Your task to perform on an android device: Go to Wikipedia Image 0: 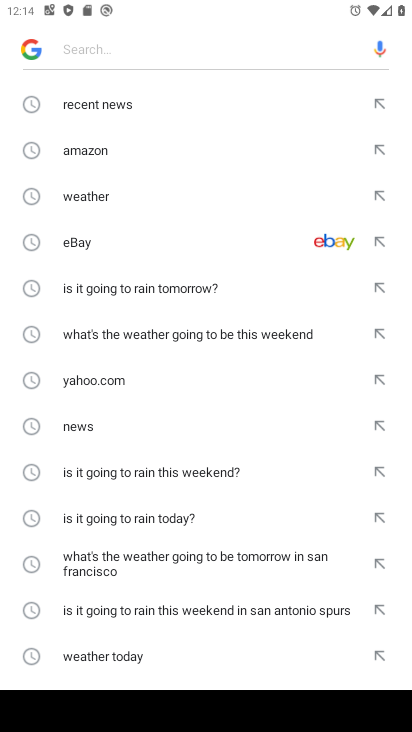
Step 0: press home button
Your task to perform on an android device: Go to Wikipedia Image 1: 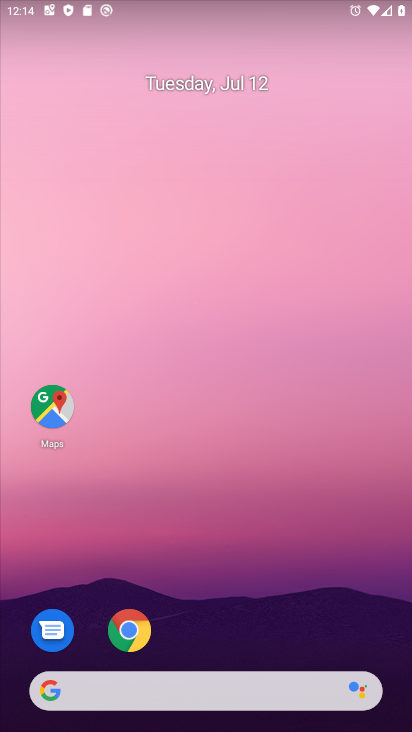
Step 1: click (126, 631)
Your task to perform on an android device: Go to Wikipedia Image 2: 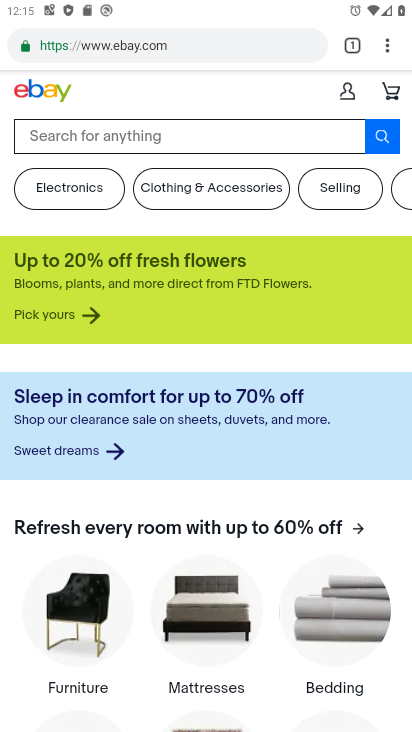
Step 2: click (269, 38)
Your task to perform on an android device: Go to Wikipedia Image 3: 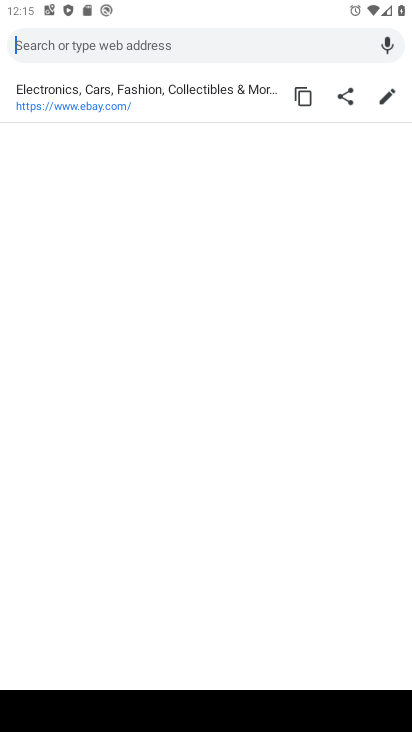
Step 3: type "Wikipedia"
Your task to perform on an android device: Go to Wikipedia Image 4: 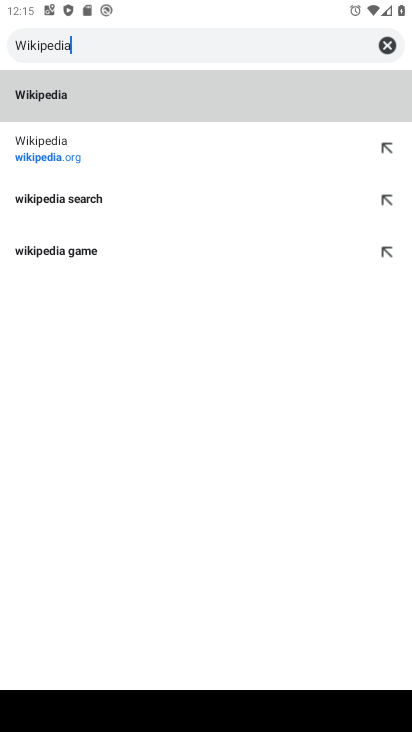
Step 4: click (57, 98)
Your task to perform on an android device: Go to Wikipedia Image 5: 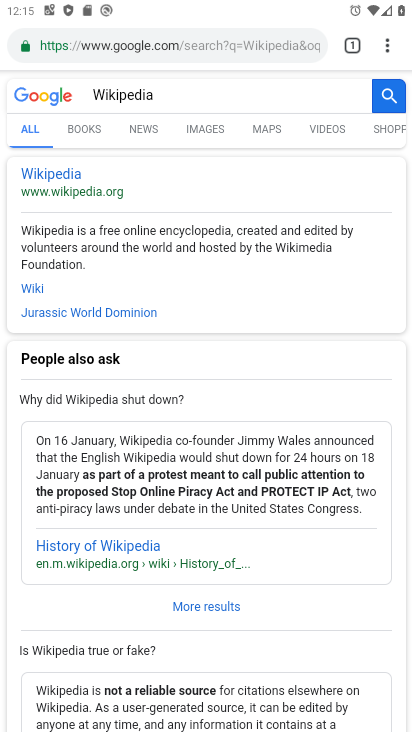
Step 5: click (57, 172)
Your task to perform on an android device: Go to Wikipedia Image 6: 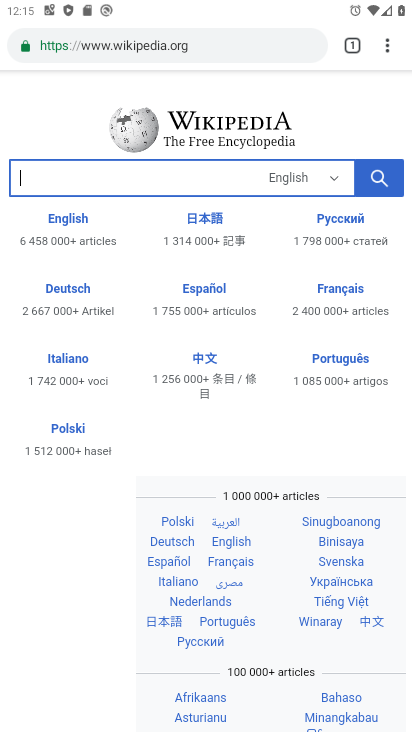
Step 6: task complete